Your task to perform on an android device: Open sound settings Image 0: 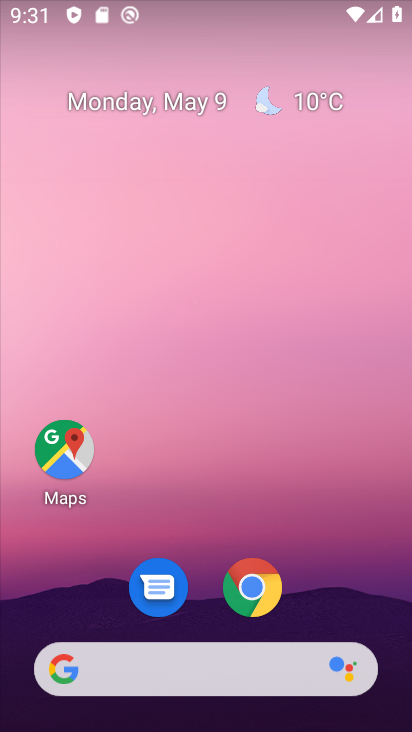
Step 0: drag from (340, 589) to (319, 137)
Your task to perform on an android device: Open sound settings Image 1: 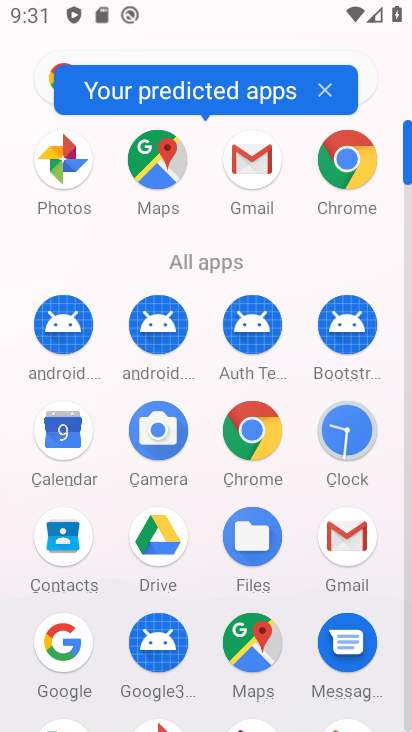
Step 1: drag from (204, 294) to (198, 81)
Your task to perform on an android device: Open sound settings Image 2: 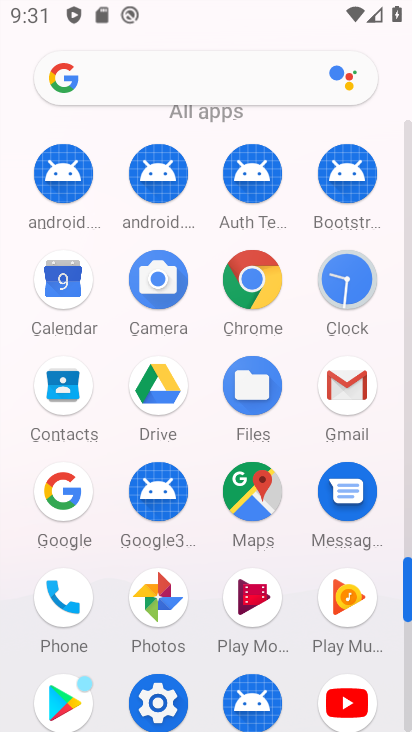
Step 2: click (172, 696)
Your task to perform on an android device: Open sound settings Image 3: 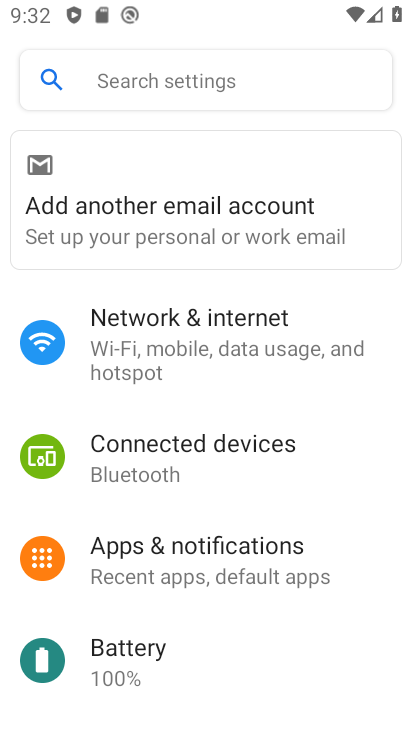
Step 3: drag from (218, 660) to (182, 355)
Your task to perform on an android device: Open sound settings Image 4: 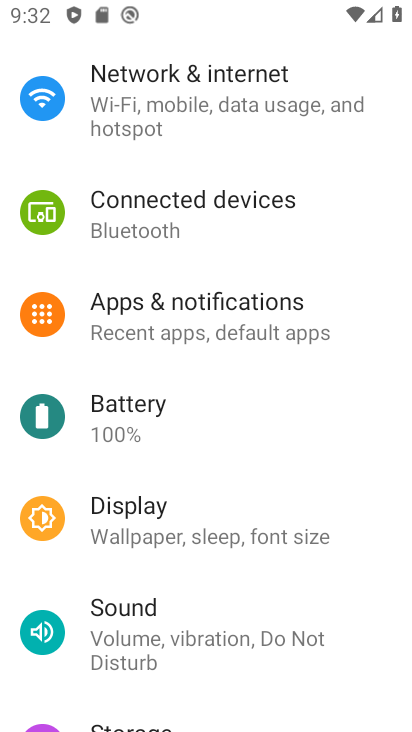
Step 4: click (161, 610)
Your task to perform on an android device: Open sound settings Image 5: 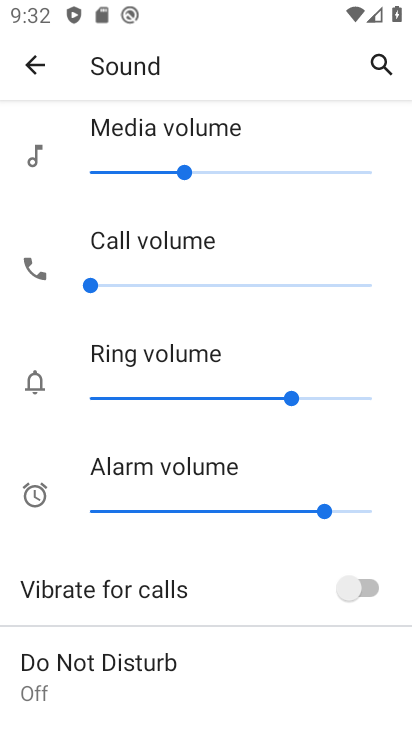
Step 5: task complete